Your task to perform on an android device: clear history in the chrome app Image 0: 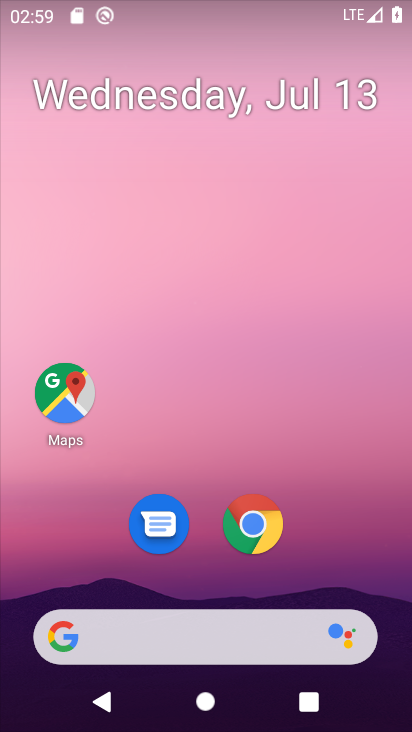
Step 0: click (259, 513)
Your task to perform on an android device: clear history in the chrome app Image 1: 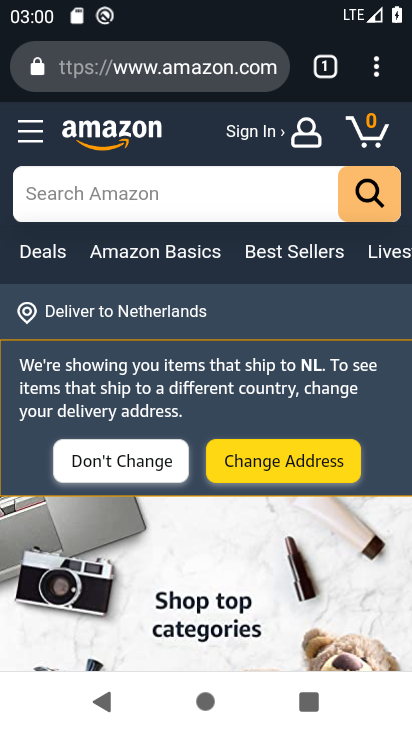
Step 1: click (379, 70)
Your task to perform on an android device: clear history in the chrome app Image 2: 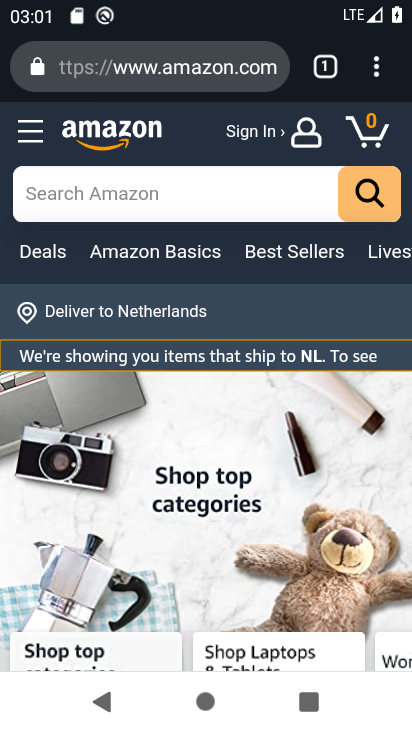
Step 2: click (379, 71)
Your task to perform on an android device: clear history in the chrome app Image 3: 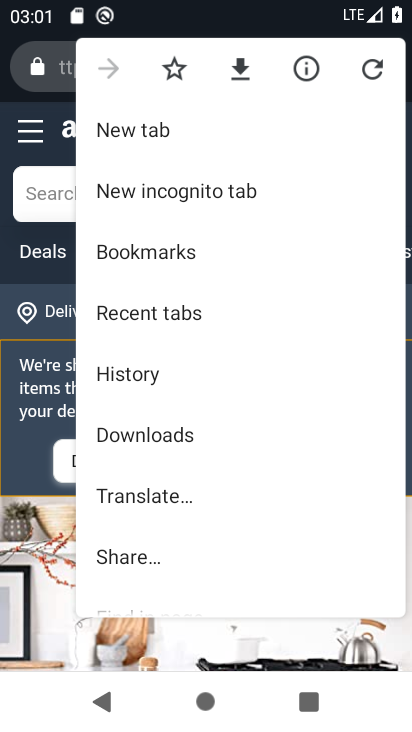
Step 3: click (145, 374)
Your task to perform on an android device: clear history in the chrome app Image 4: 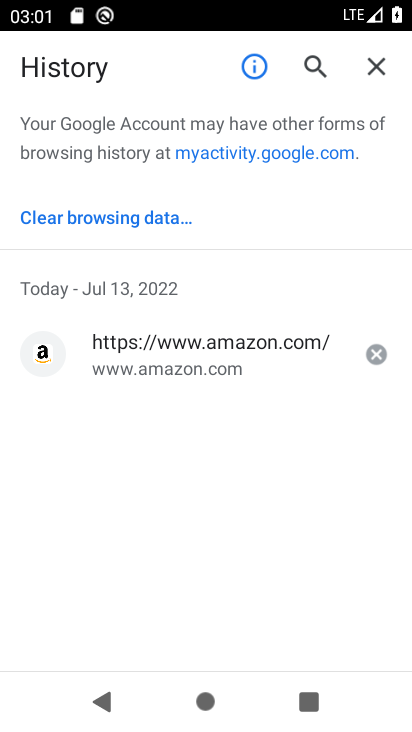
Step 4: click (132, 213)
Your task to perform on an android device: clear history in the chrome app Image 5: 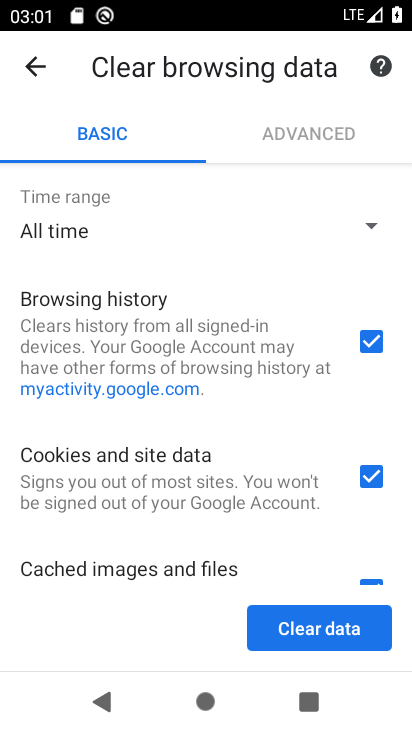
Step 5: click (293, 635)
Your task to perform on an android device: clear history in the chrome app Image 6: 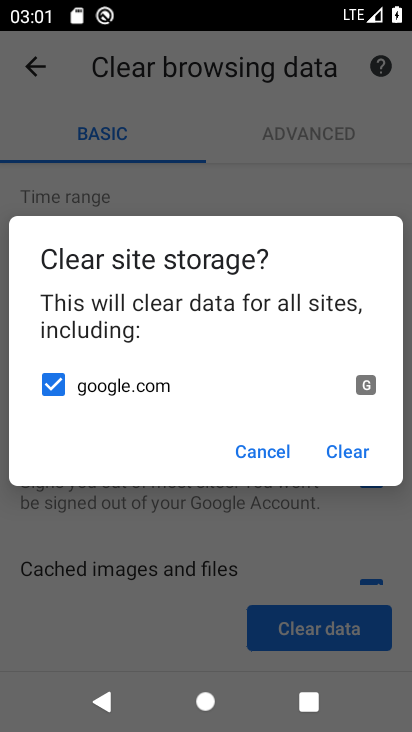
Step 6: click (344, 452)
Your task to perform on an android device: clear history in the chrome app Image 7: 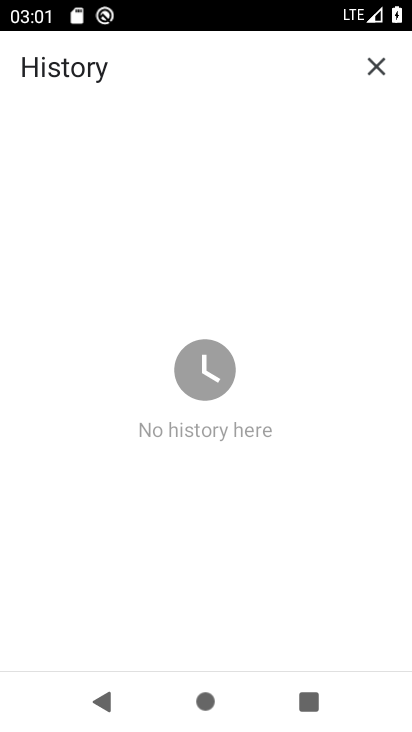
Step 7: task complete